Your task to perform on an android device: delete browsing data in the chrome app Image 0: 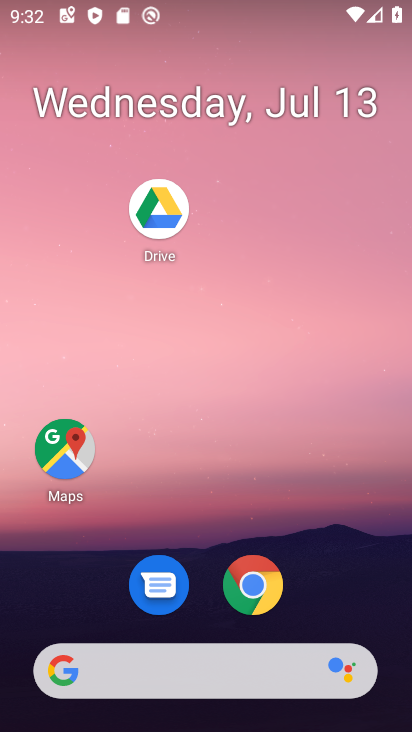
Step 0: click (239, 597)
Your task to perform on an android device: delete browsing data in the chrome app Image 1: 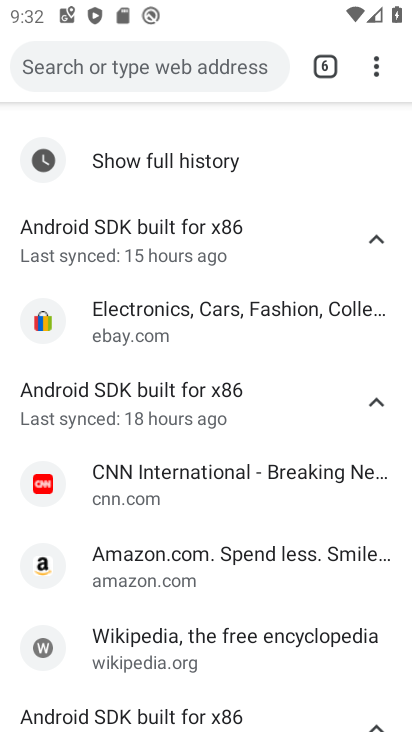
Step 1: drag from (378, 65) to (225, 554)
Your task to perform on an android device: delete browsing data in the chrome app Image 2: 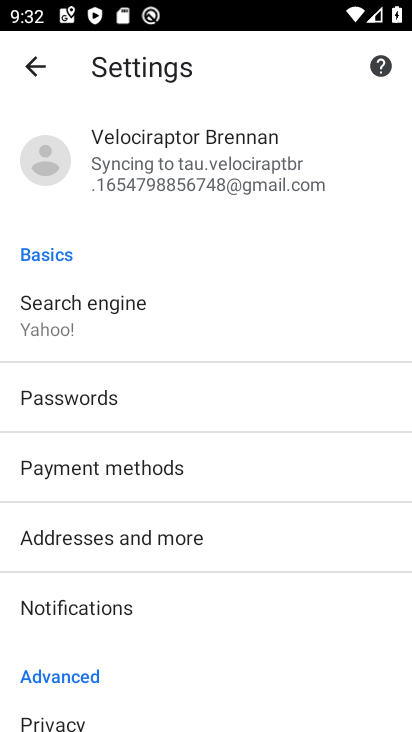
Step 2: drag from (149, 650) to (263, 313)
Your task to perform on an android device: delete browsing data in the chrome app Image 3: 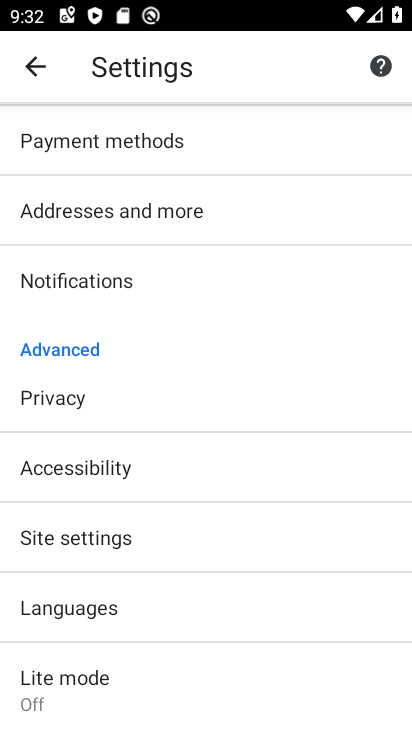
Step 3: click (75, 399)
Your task to perform on an android device: delete browsing data in the chrome app Image 4: 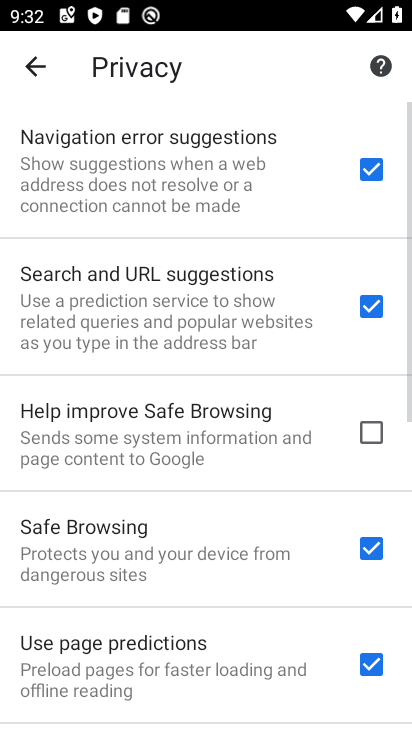
Step 4: drag from (162, 650) to (369, 166)
Your task to perform on an android device: delete browsing data in the chrome app Image 5: 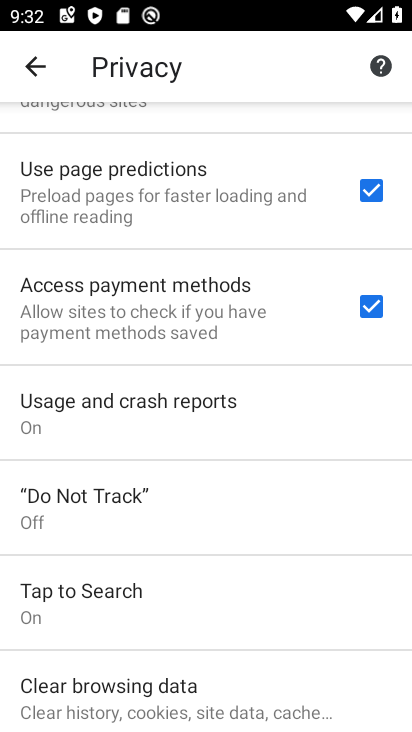
Step 5: click (160, 700)
Your task to perform on an android device: delete browsing data in the chrome app Image 6: 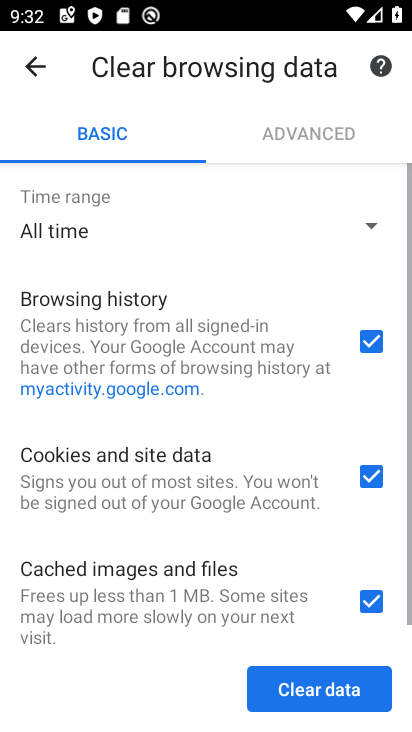
Step 6: click (355, 691)
Your task to perform on an android device: delete browsing data in the chrome app Image 7: 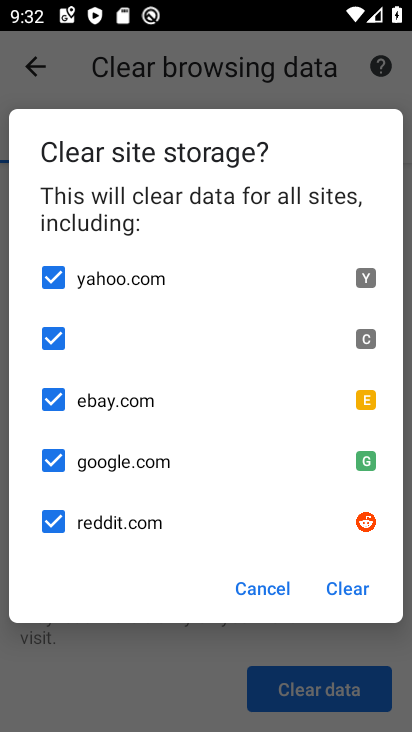
Step 7: click (349, 596)
Your task to perform on an android device: delete browsing data in the chrome app Image 8: 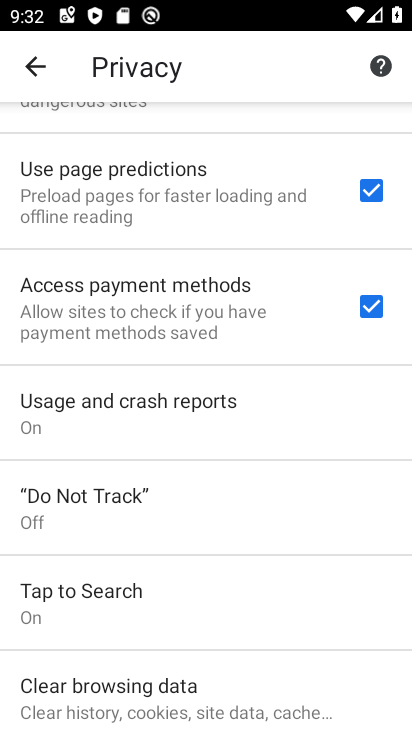
Step 8: task complete